Your task to perform on an android device: Go to network settings Image 0: 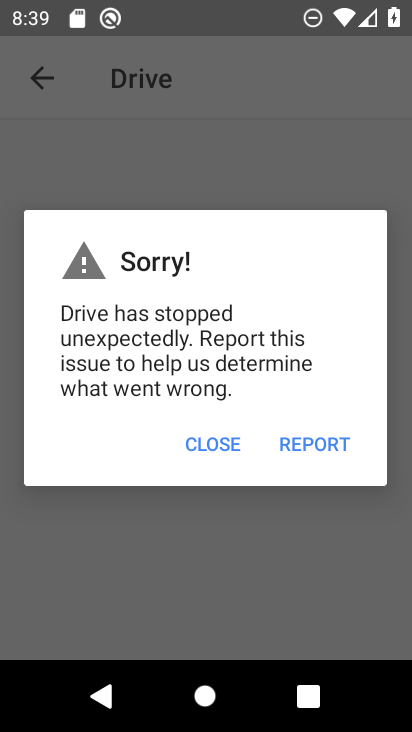
Step 0: press home button
Your task to perform on an android device: Go to network settings Image 1: 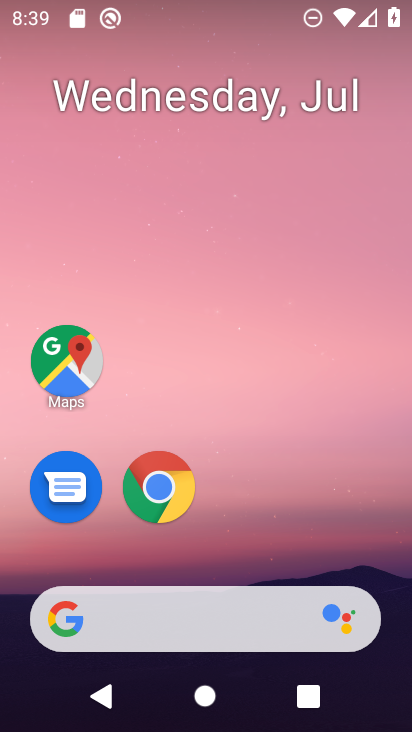
Step 1: drag from (360, 515) to (364, 74)
Your task to perform on an android device: Go to network settings Image 2: 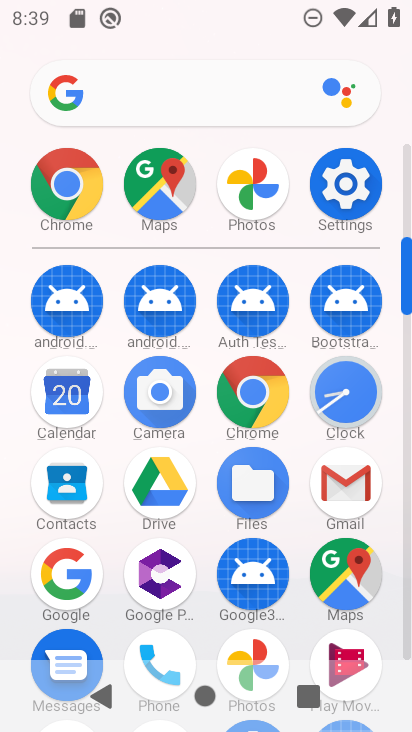
Step 2: click (361, 191)
Your task to perform on an android device: Go to network settings Image 3: 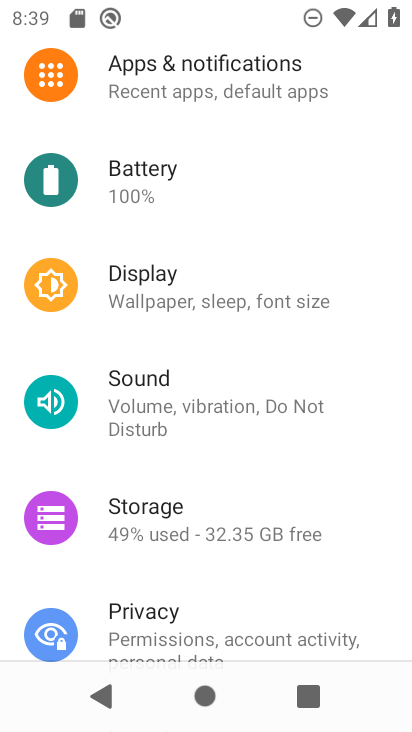
Step 3: drag from (361, 191) to (365, 277)
Your task to perform on an android device: Go to network settings Image 4: 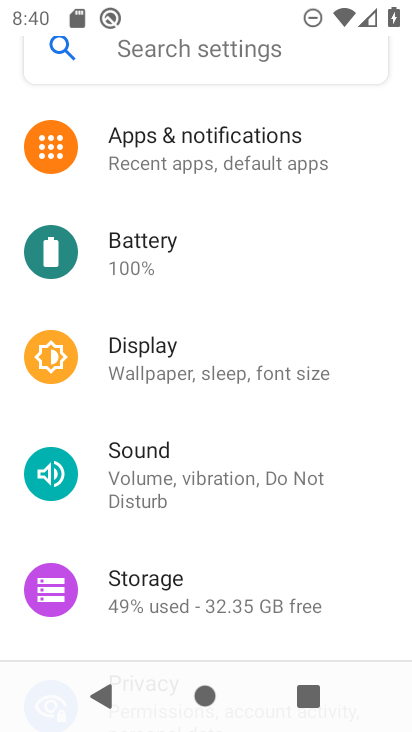
Step 4: drag from (367, 138) to (371, 279)
Your task to perform on an android device: Go to network settings Image 5: 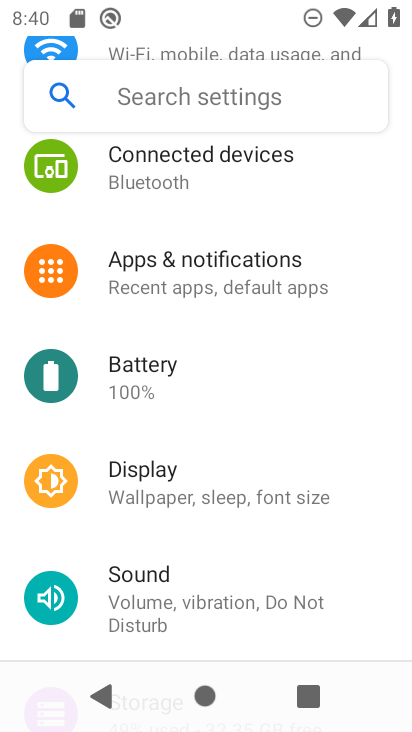
Step 5: drag from (364, 165) to (366, 271)
Your task to perform on an android device: Go to network settings Image 6: 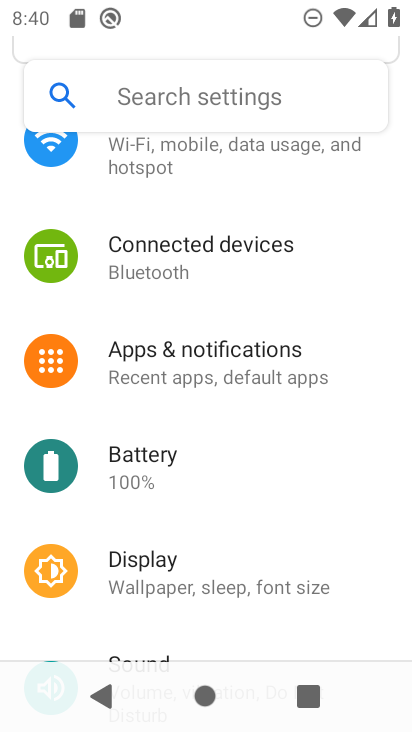
Step 6: drag from (369, 180) to (373, 341)
Your task to perform on an android device: Go to network settings Image 7: 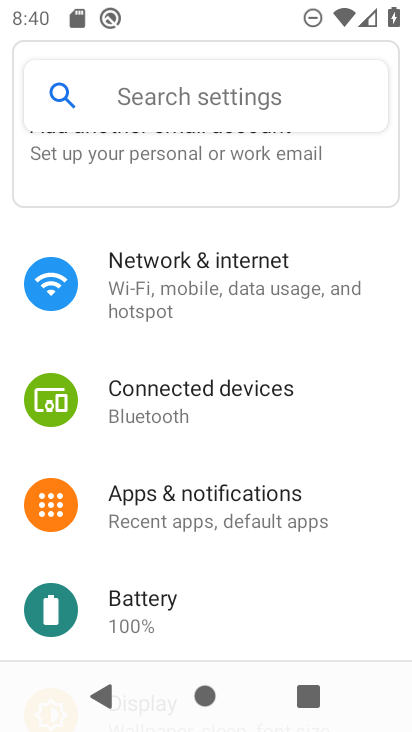
Step 7: click (280, 285)
Your task to perform on an android device: Go to network settings Image 8: 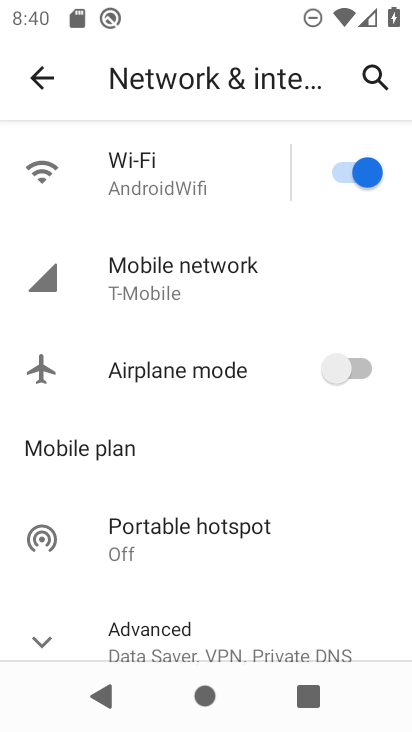
Step 8: task complete